Your task to perform on an android device: open app "Adobe Acrobat Reader: Edit PDF" Image 0: 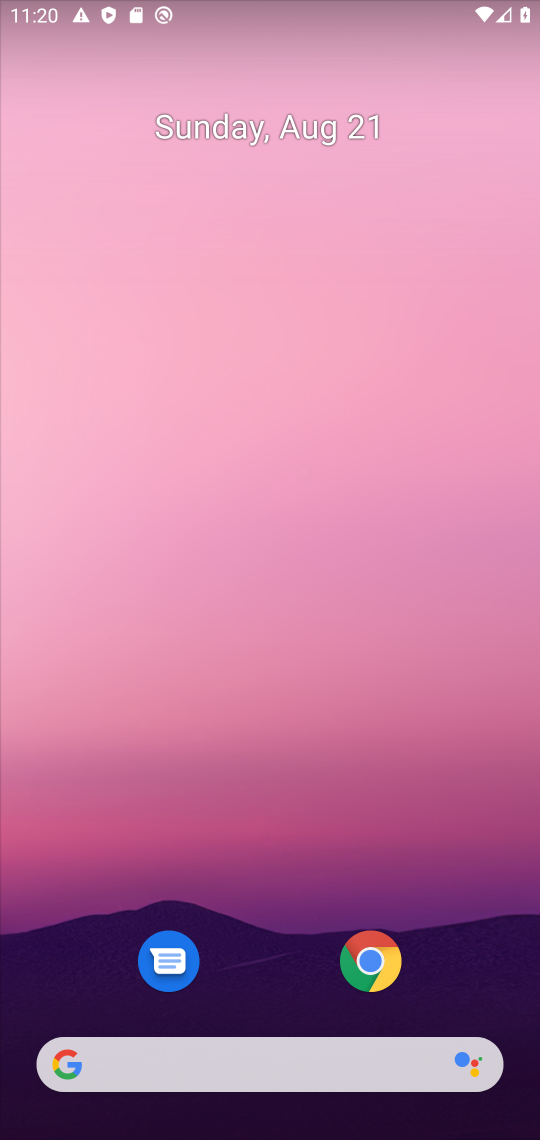
Step 0: press home button
Your task to perform on an android device: open app "Adobe Acrobat Reader: Edit PDF" Image 1: 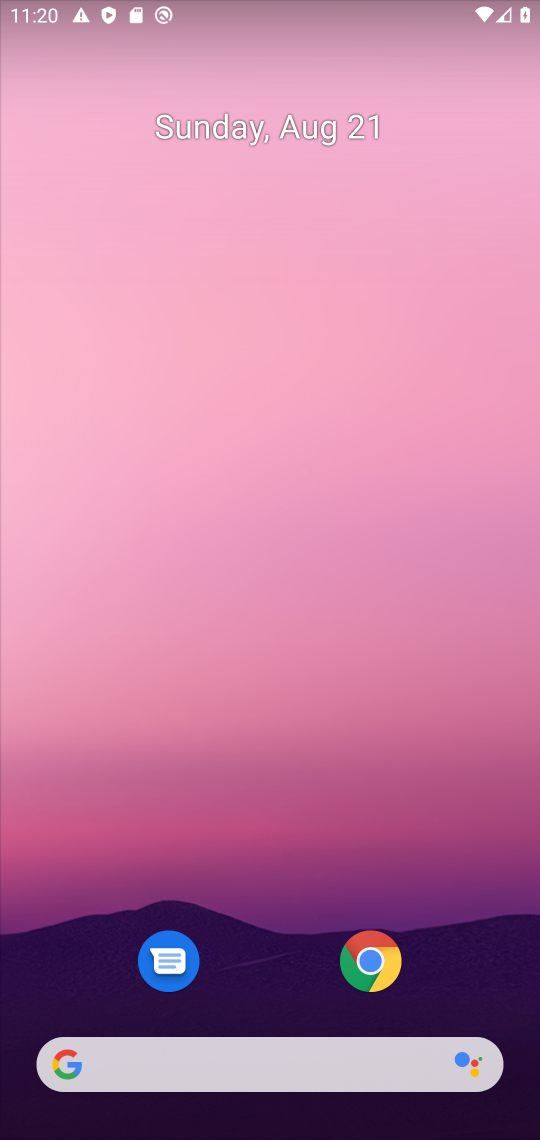
Step 1: drag from (459, 950) to (420, 73)
Your task to perform on an android device: open app "Adobe Acrobat Reader: Edit PDF" Image 2: 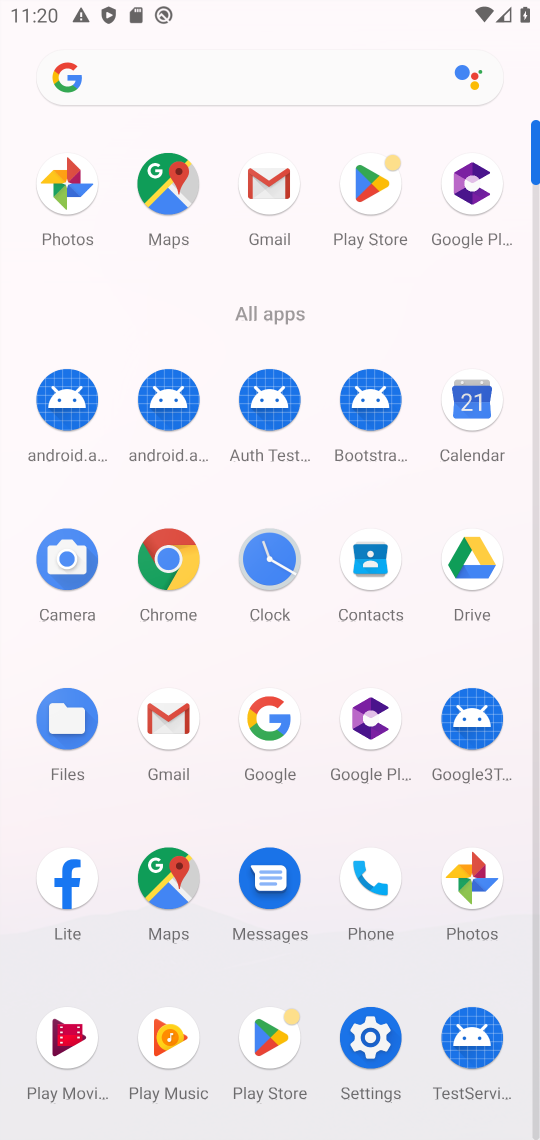
Step 2: click (381, 177)
Your task to perform on an android device: open app "Adobe Acrobat Reader: Edit PDF" Image 3: 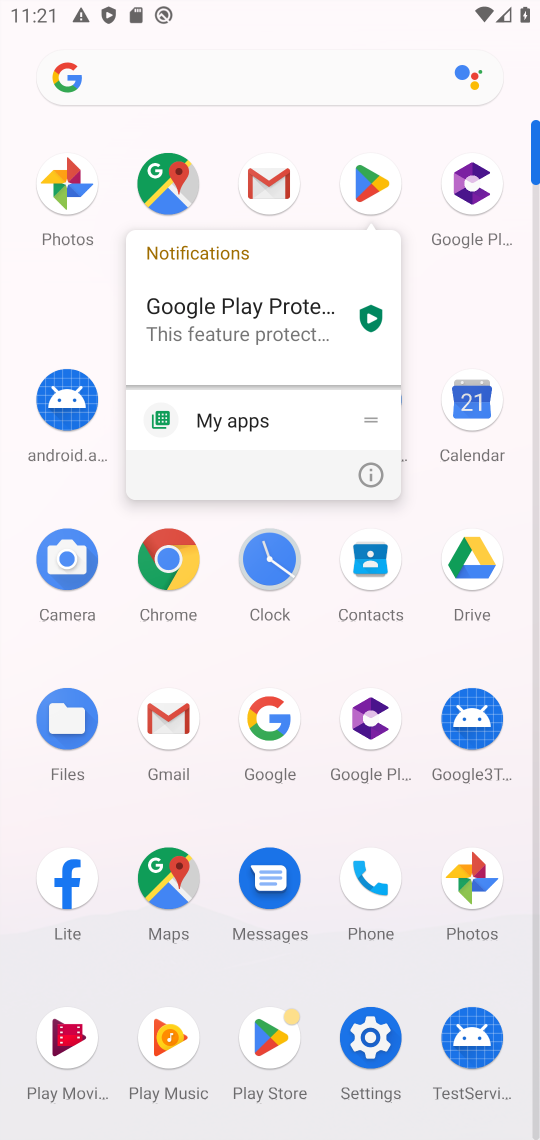
Step 3: click (381, 177)
Your task to perform on an android device: open app "Adobe Acrobat Reader: Edit PDF" Image 4: 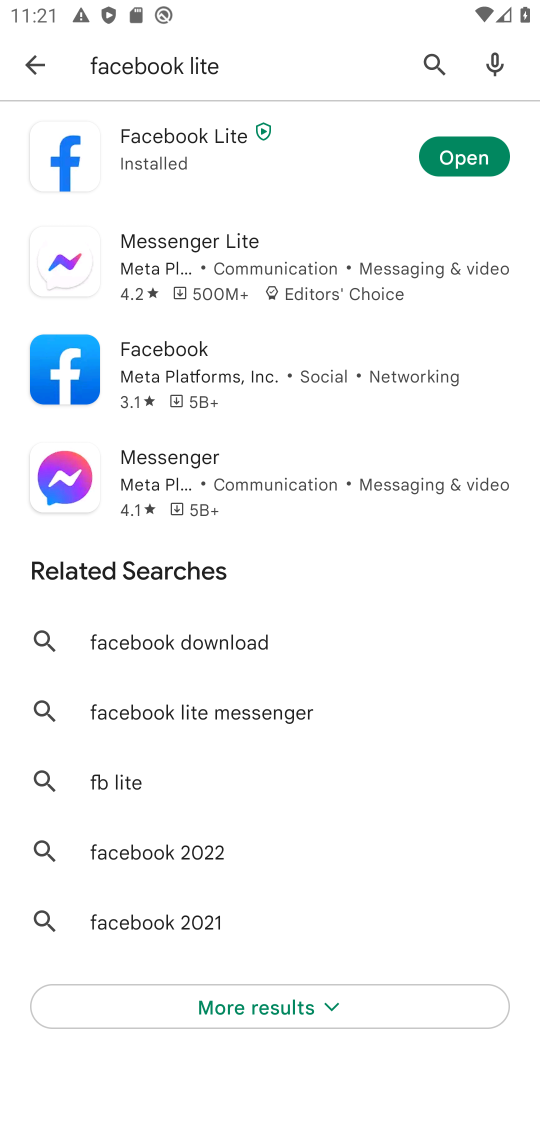
Step 4: press back button
Your task to perform on an android device: open app "Adobe Acrobat Reader: Edit PDF" Image 5: 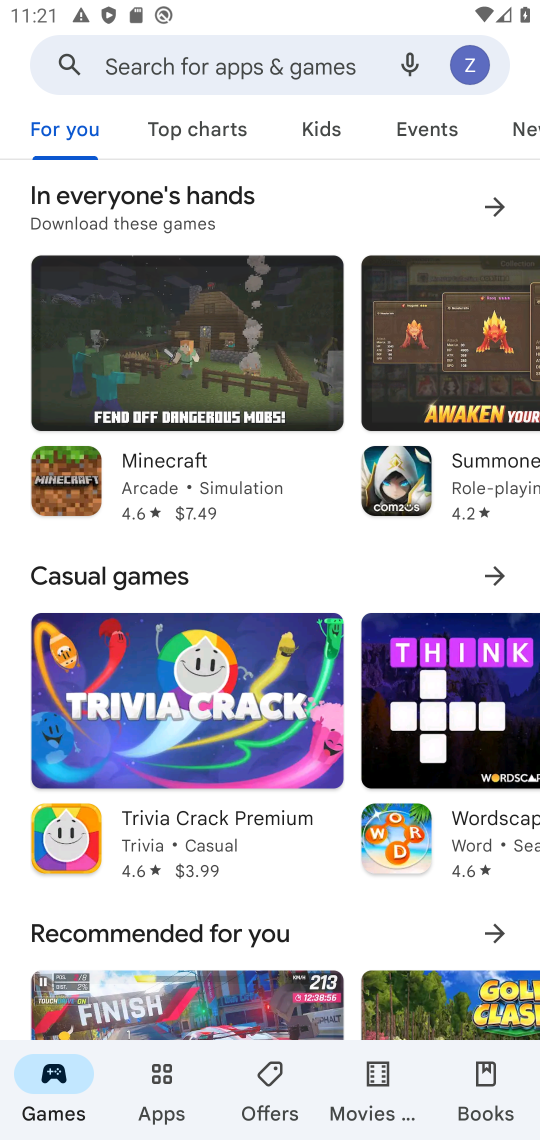
Step 5: click (290, 66)
Your task to perform on an android device: open app "Adobe Acrobat Reader: Edit PDF" Image 6: 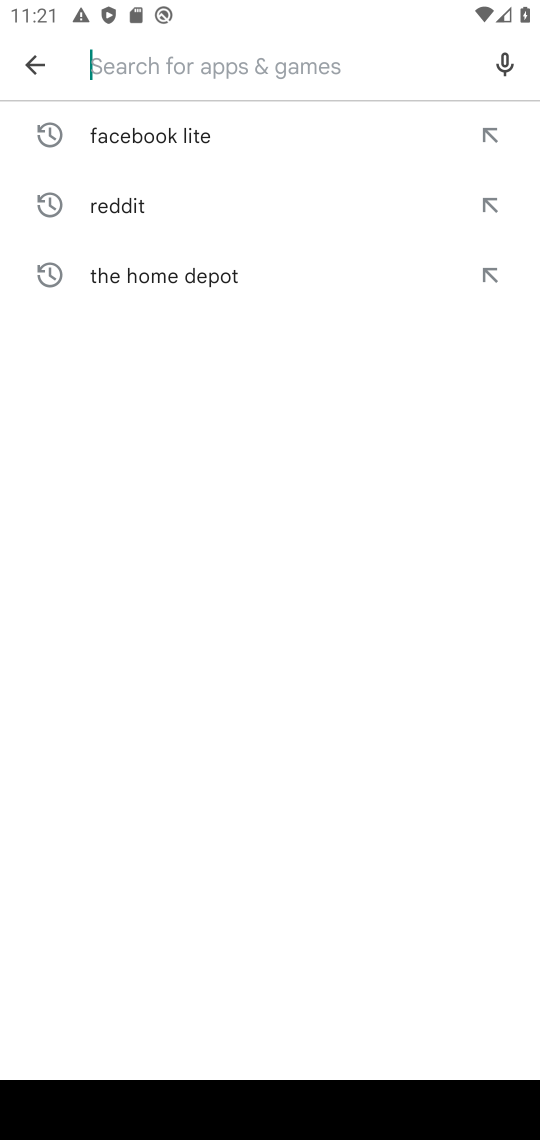
Step 6: type "Adobe Acrobat Reader: Edit PDF"
Your task to perform on an android device: open app "Adobe Acrobat Reader: Edit PDF" Image 7: 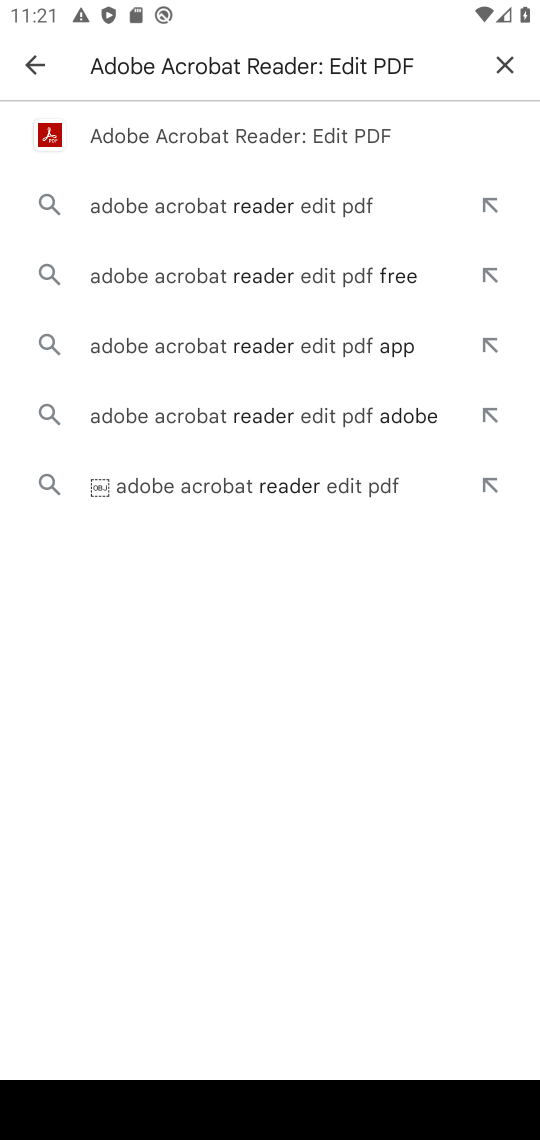
Step 7: click (315, 138)
Your task to perform on an android device: open app "Adobe Acrobat Reader: Edit PDF" Image 8: 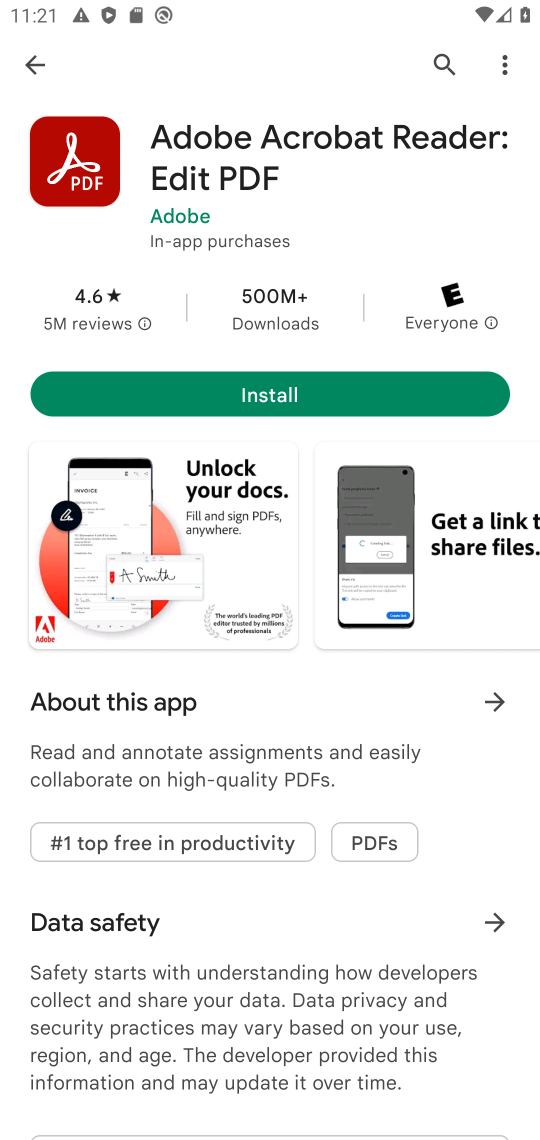
Step 8: task complete